Your task to perform on an android device: turn off wifi Image 0: 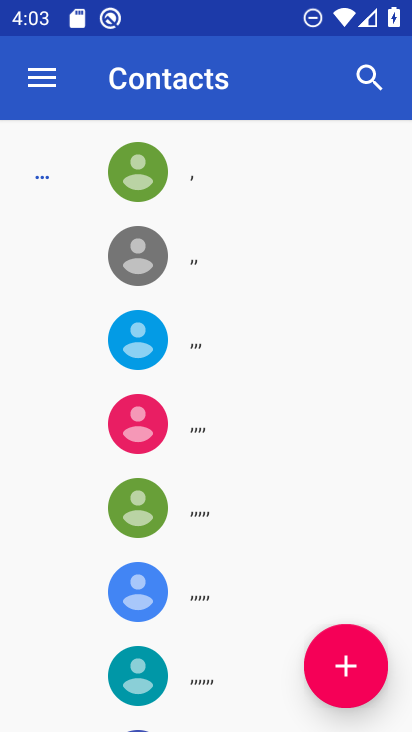
Step 0: press home button
Your task to perform on an android device: turn off wifi Image 1: 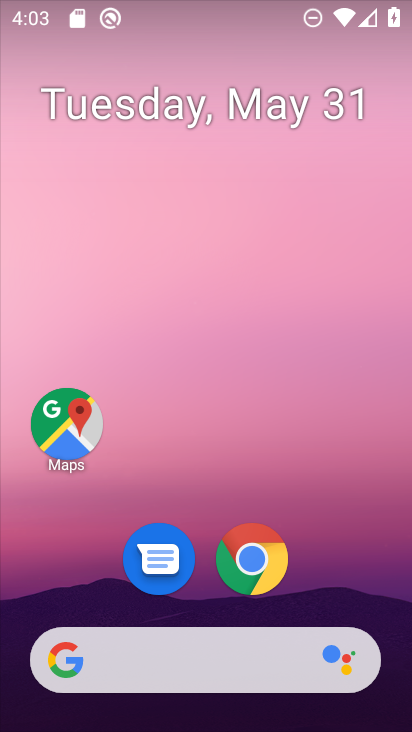
Step 1: drag from (214, 720) to (227, 158)
Your task to perform on an android device: turn off wifi Image 2: 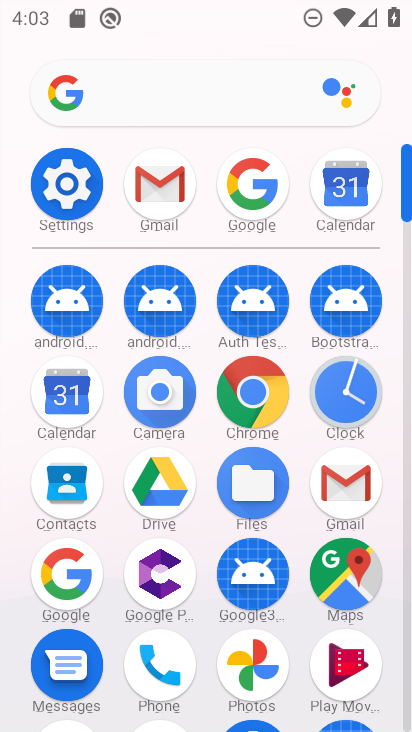
Step 2: click (74, 181)
Your task to perform on an android device: turn off wifi Image 3: 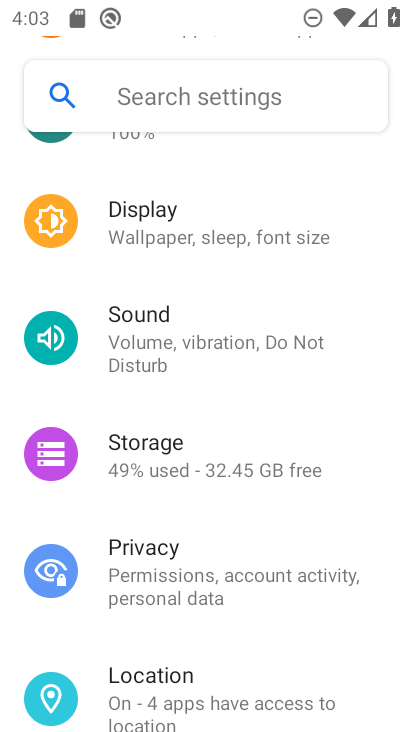
Step 3: drag from (236, 161) to (261, 541)
Your task to perform on an android device: turn off wifi Image 4: 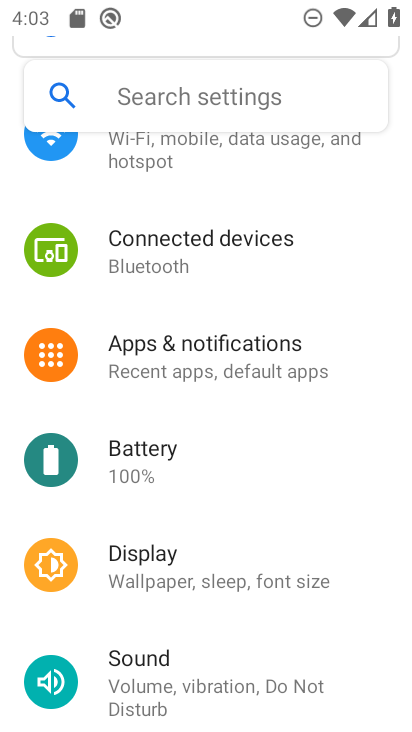
Step 4: drag from (232, 187) to (284, 547)
Your task to perform on an android device: turn off wifi Image 5: 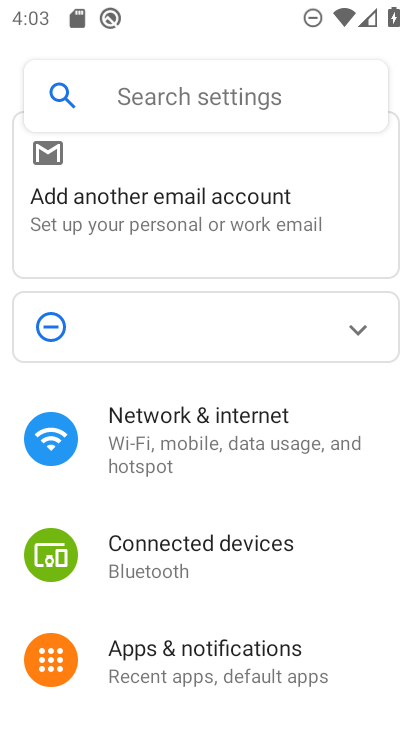
Step 5: click (147, 446)
Your task to perform on an android device: turn off wifi Image 6: 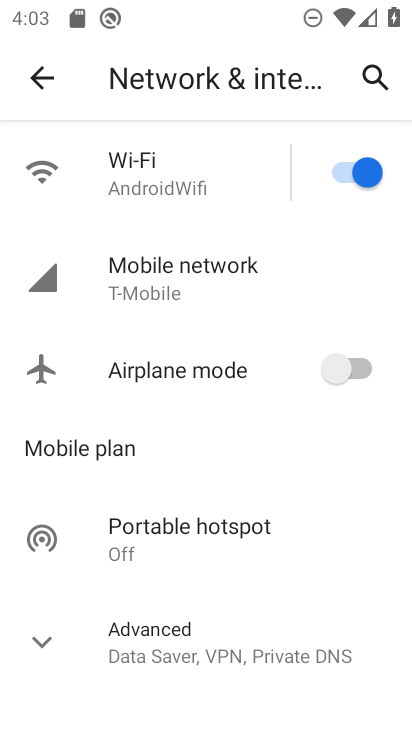
Step 6: click (343, 173)
Your task to perform on an android device: turn off wifi Image 7: 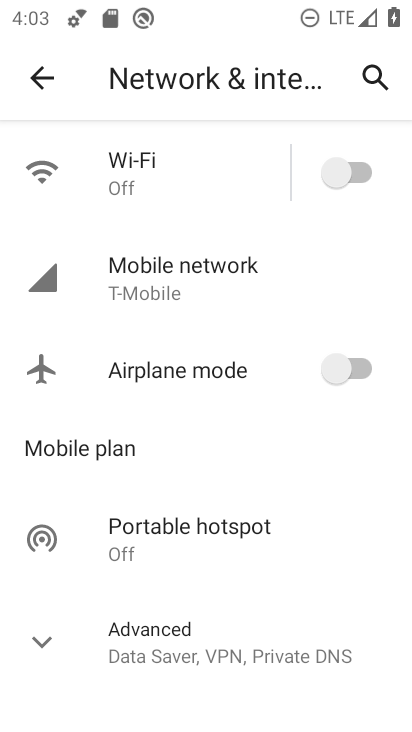
Step 7: task complete